Your task to perform on an android device: Do I have any events tomorrow? Image 0: 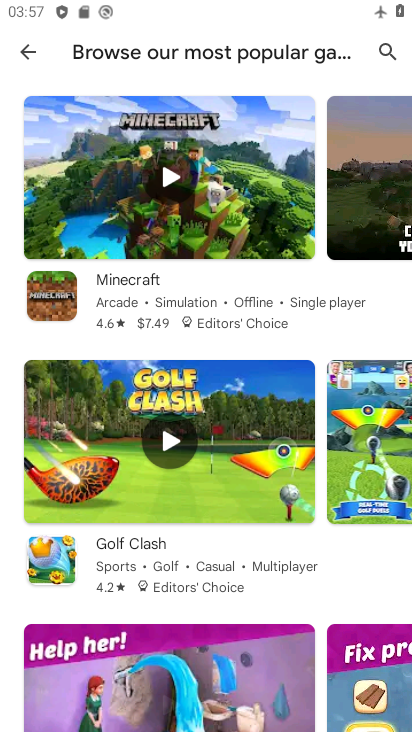
Step 0: press home button
Your task to perform on an android device: Do I have any events tomorrow? Image 1: 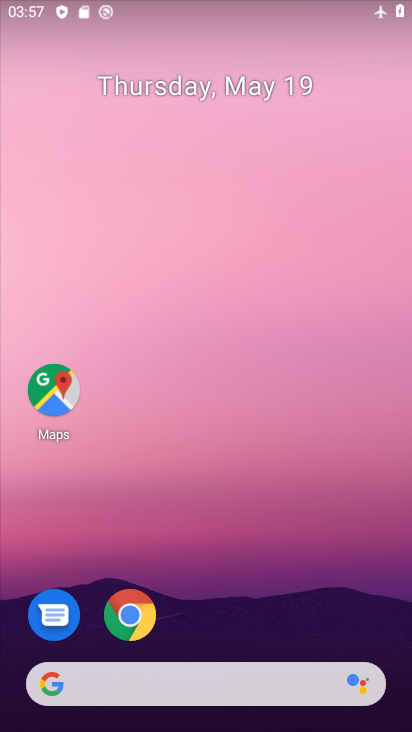
Step 1: drag from (270, 645) to (275, 0)
Your task to perform on an android device: Do I have any events tomorrow? Image 2: 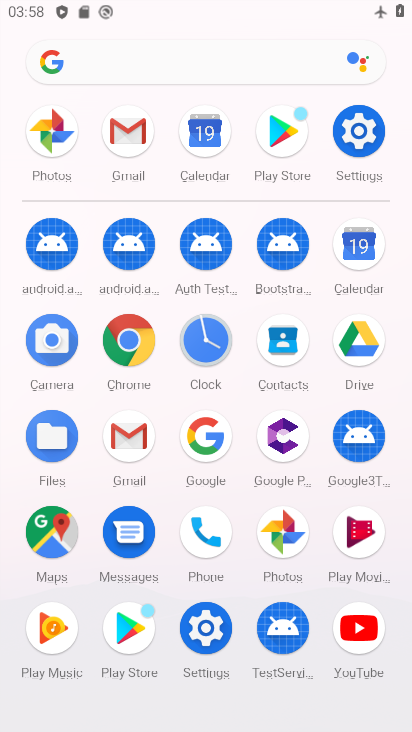
Step 2: click (353, 250)
Your task to perform on an android device: Do I have any events tomorrow? Image 3: 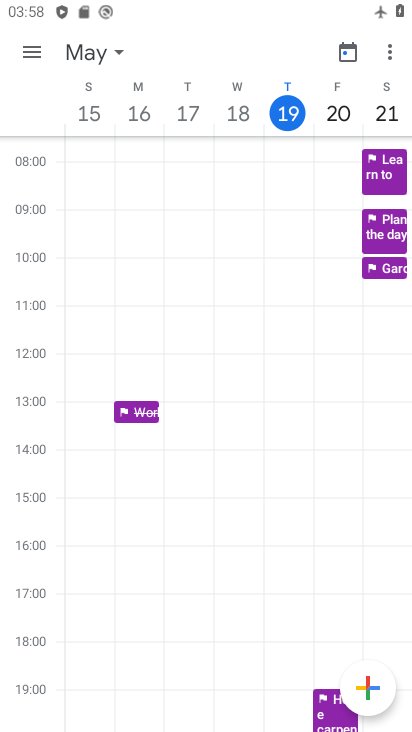
Step 3: click (34, 57)
Your task to perform on an android device: Do I have any events tomorrow? Image 4: 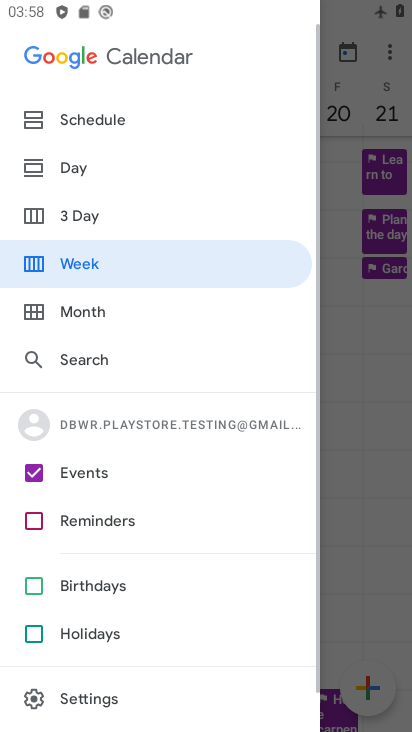
Step 4: click (45, 100)
Your task to perform on an android device: Do I have any events tomorrow? Image 5: 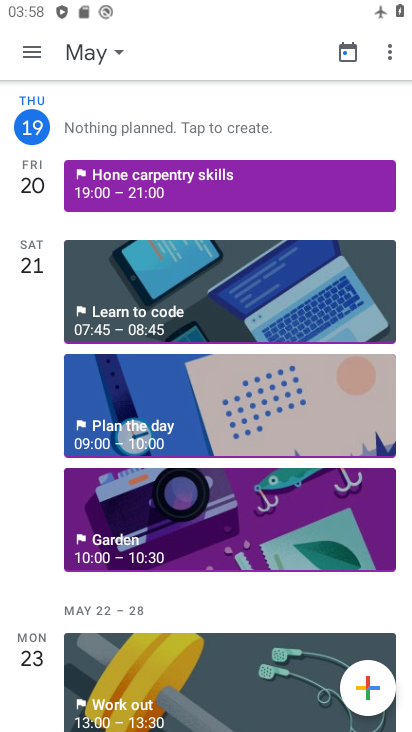
Step 5: click (213, 194)
Your task to perform on an android device: Do I have any events tomorrow? Image 6: 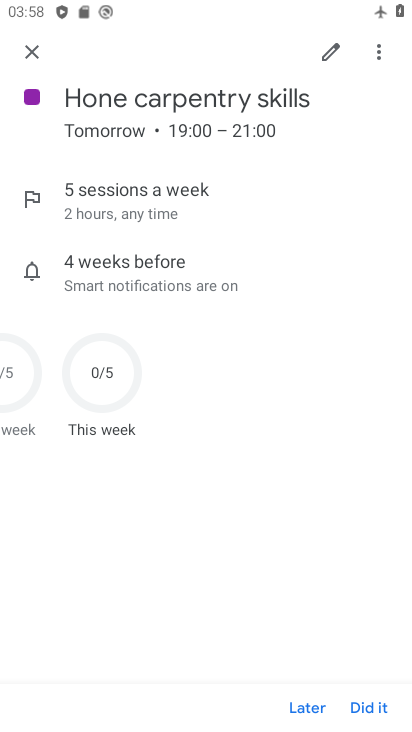
Step 6: task complete